Your task to perform on an android device: toggle notification dots Image 0: 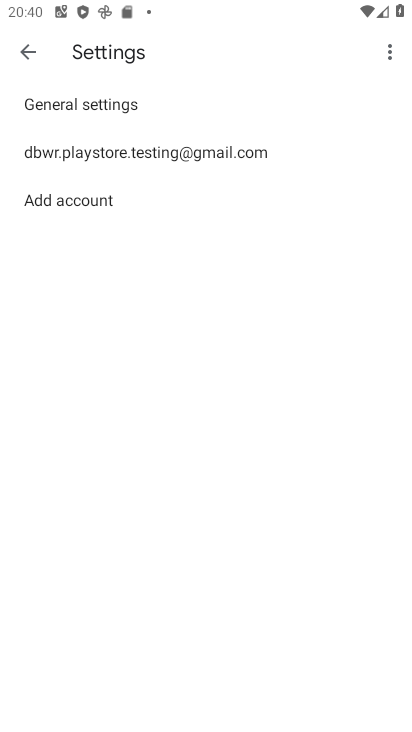
Step 0: press home button
Your task to perform on an android device: toggle notification dots Image 1: 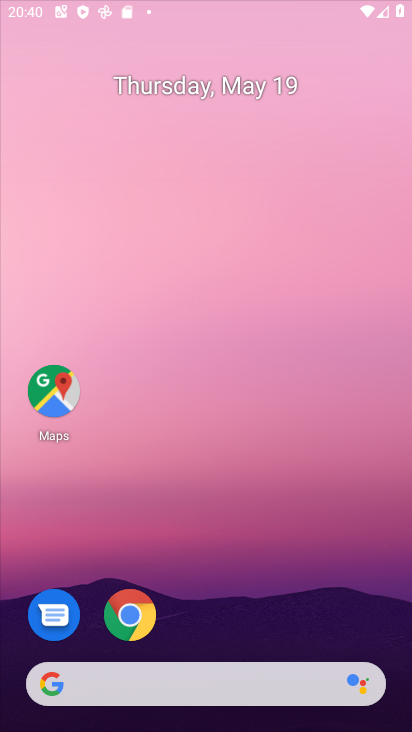
Step 1: drag from (276, 615) to (312, 111)
Your task to perform on an android device: toggle notification dots Image 2: 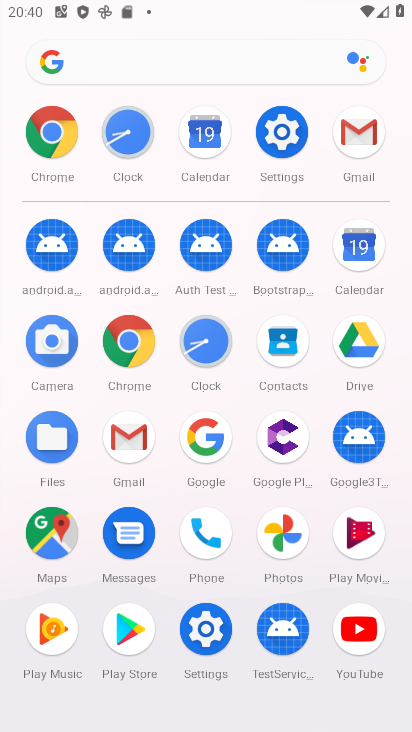
Step 2: click (287, 131)
Your task to perform on an android device: toggle notification dots Image 3: 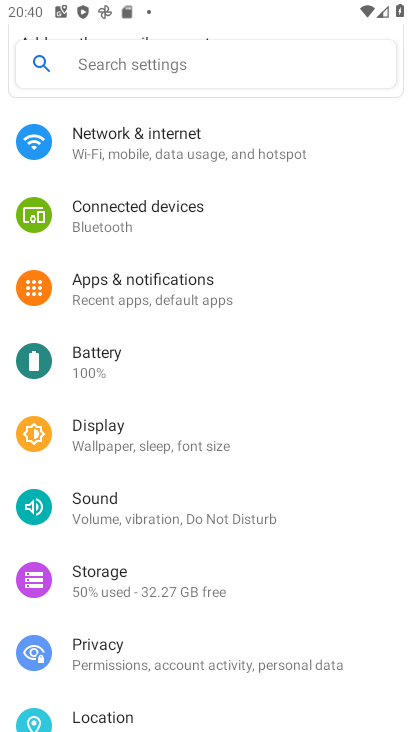
Step 3: click (136, 284)
Your task to perform on an android device: toggle notification dots Image 4: 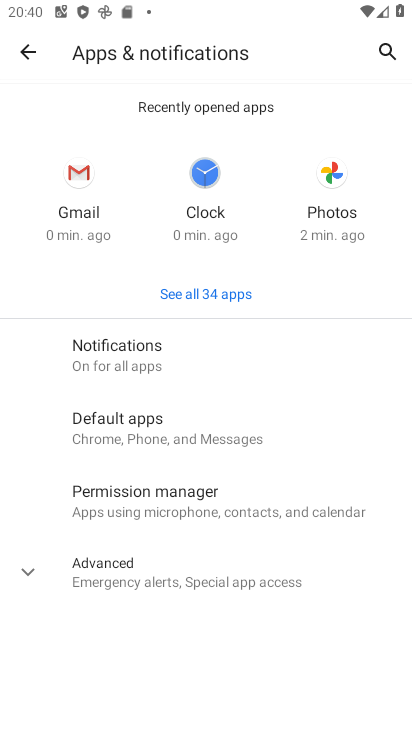
Step 4: click (130, 349)
Your task to perform on an android device: toggle notification dots Image 5: 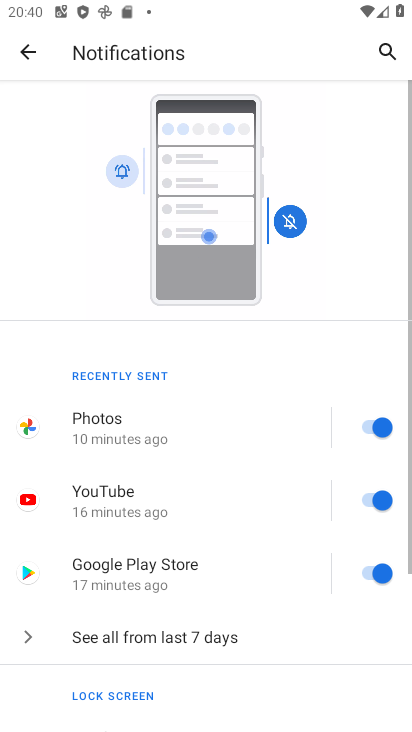
Step 5: drag from (186, 588) to (169, 20)
Your task to perform on an android device: toggle notification dots Image 6: 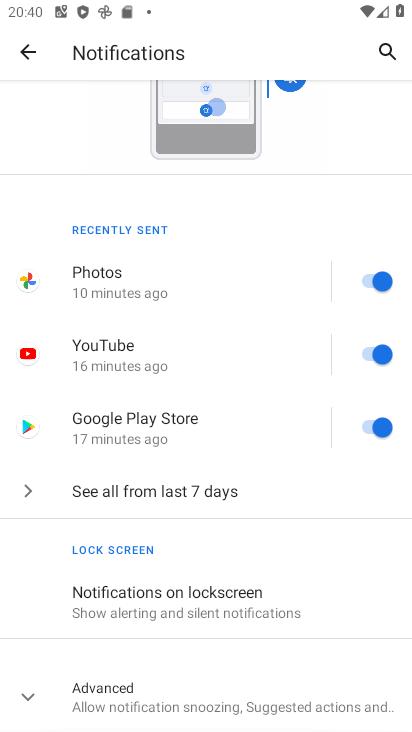
Step 6: click (91, 710)
Your task to perform on an android device: toggle notification dots Image 7: 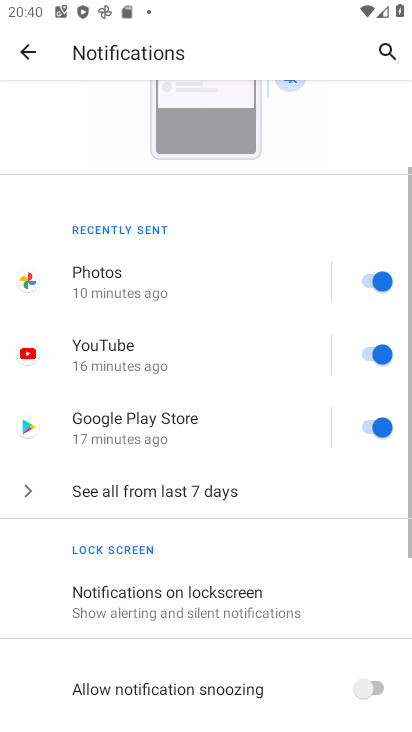
Step 7: drag from (262, 652) to (273, 218)
Your task to perform on an android device: toggle notification dots Image 8: 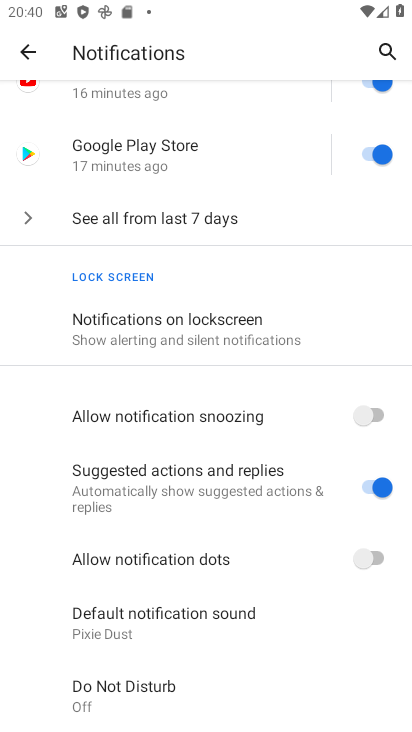
Step 8: click (373, 559)
Your task to perform on an android device: toggle notification dots Image 9: 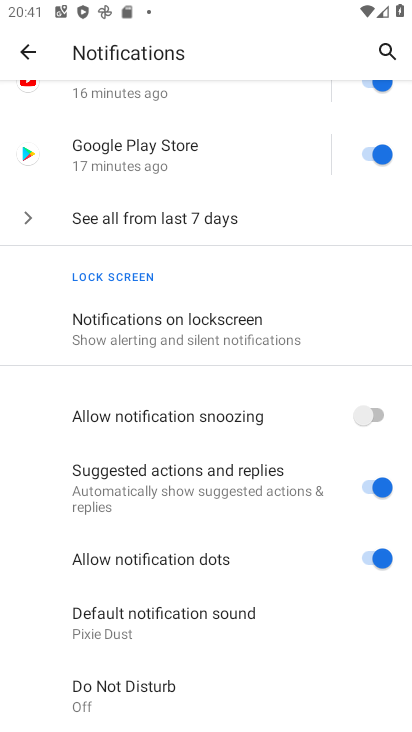
Step 9: task complete